Your task to perform on an android device: move a message to another label in the gmail app Image 0: 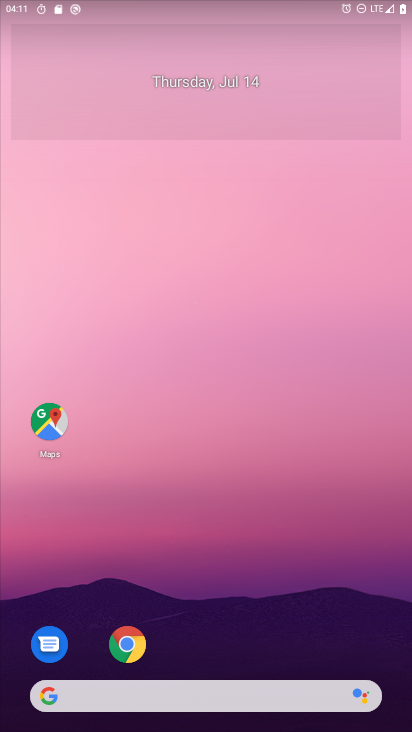
Step 0: drag from (332, 654) to (294, 43)
Your task to perform on an android device: move a message to another label in the gmail app Image 1: 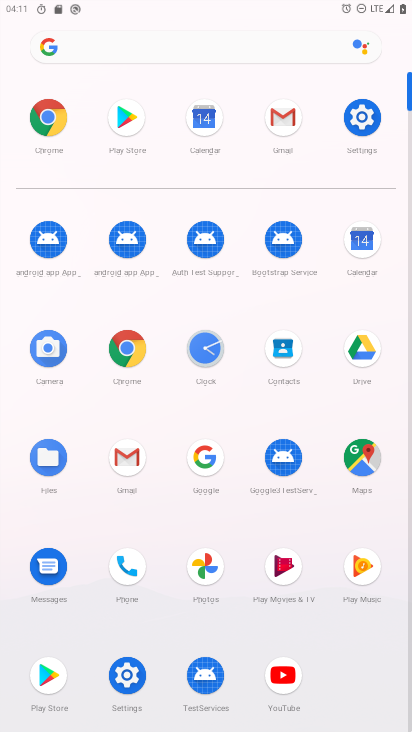
Step 1: click (278, 115)
Your task to perform on an android device: move a message to another label in the gmail app Image 2: 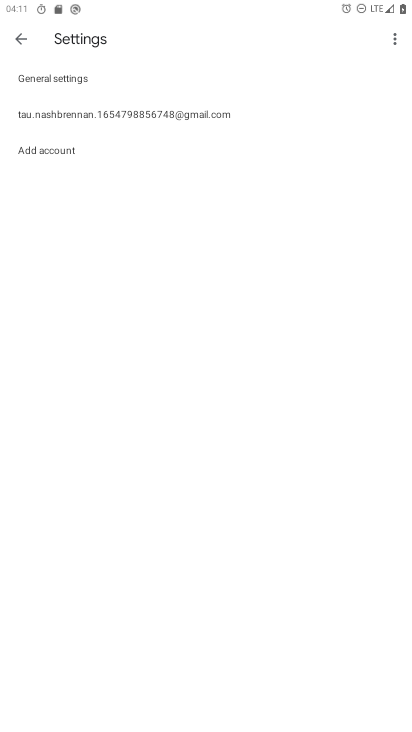
Step 2: click (18, 35)
Your task to perform on an android device: move a message to another label in the gmail app Image 3: 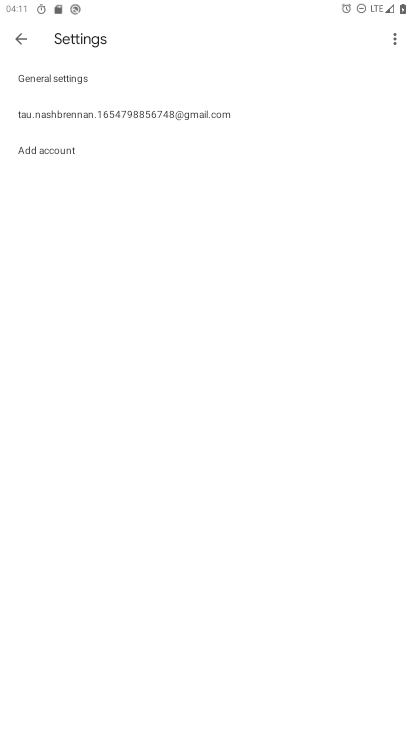
Step 3: click (24, 26)
Your task to perform on an android device: move a message to another label in the gmail app Image 4: 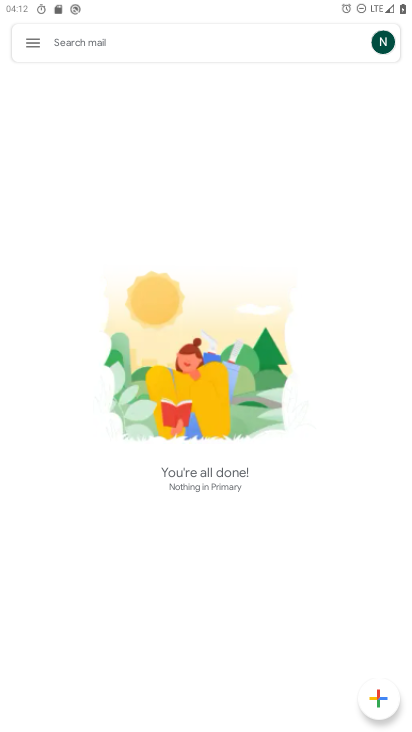
Step 4: click (35, 44)
Your task to perform on an android device: move a message to another label in the gmail app Image 5: 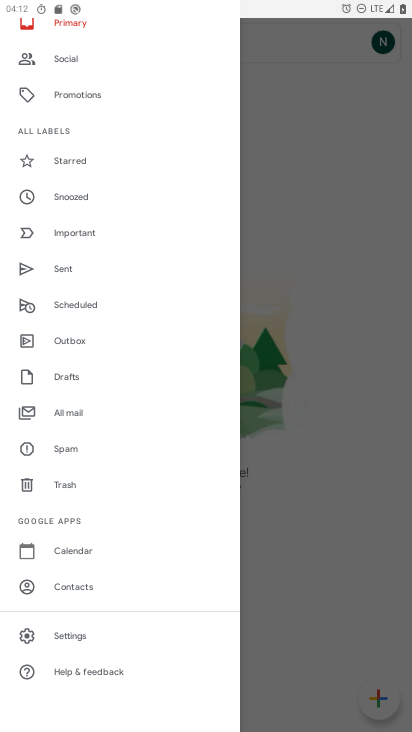
Step 5: click (73, 410)
Your task to perform on an android device: move a message to another label in the gmail app Image 6: 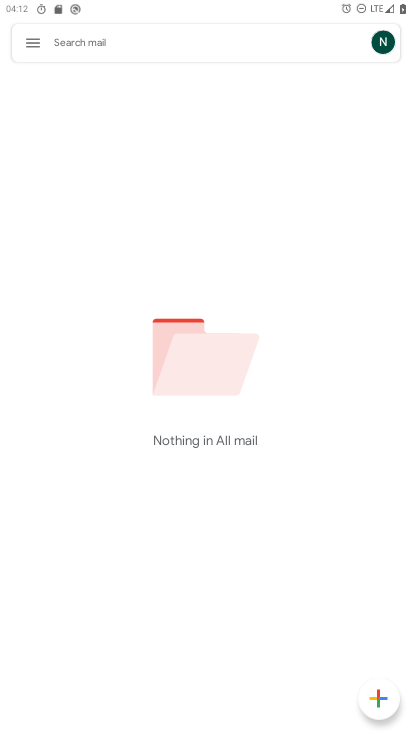
Step 6: task complete